Your task to perform on an android device: visit the assistant section in the google photos Image 0: 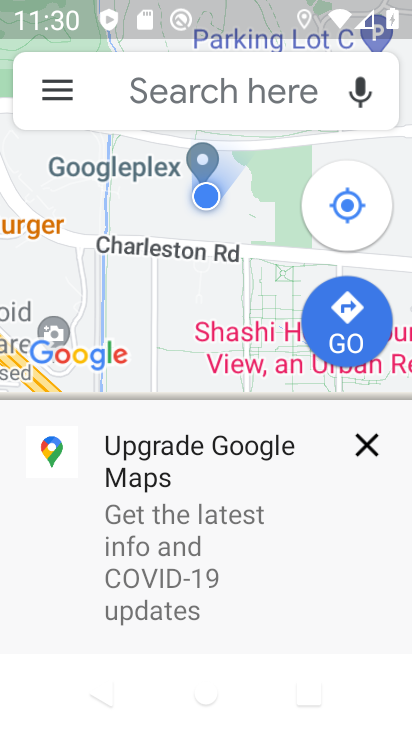
Step 0: press home button
Your task to perform on an android device: visit the assistant section in the google photos Image 1: 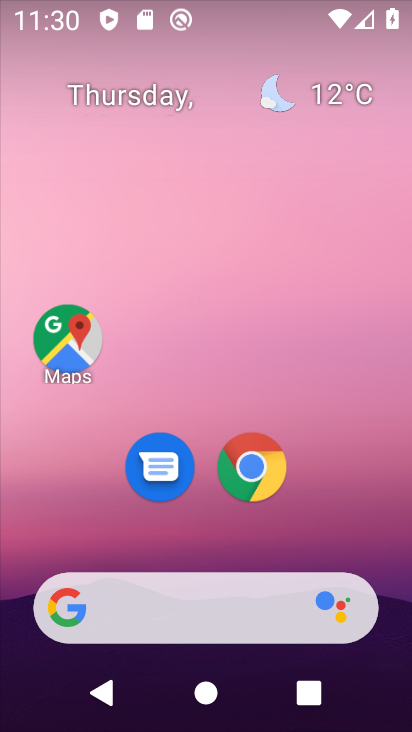
Step 1: drag from (303, 515) to (325, 89)
Your task to perform on an android device: visit the assistant section in the google photos Image 2: 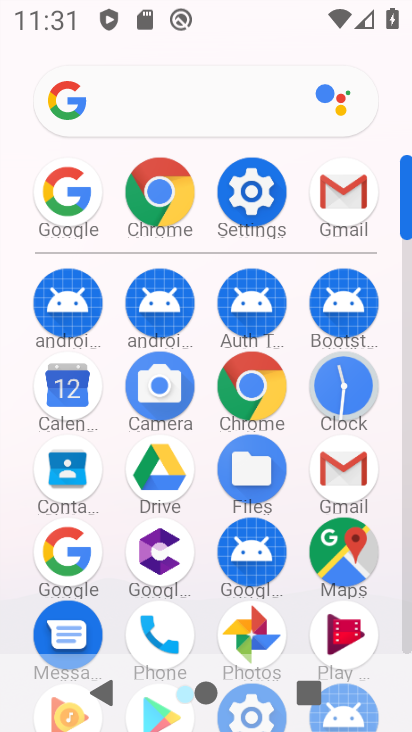
Step 2: click (257, 628)
Your task to perform on an android device: visit the assistant section in the google photos Image 3: 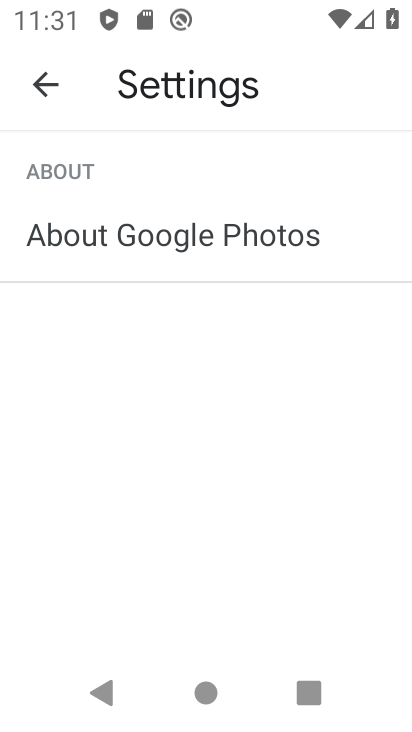
Step 3: click (52, 87)
Your task to perform on an android device: visit the assistant section in the google photos Image 4: 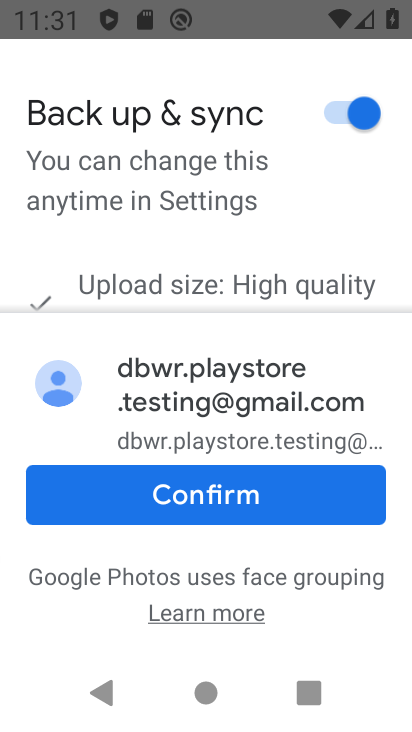
Step 4: click (210, 492)
Your task to perform on an android device: visit the assistant section in the google photos Image 5: 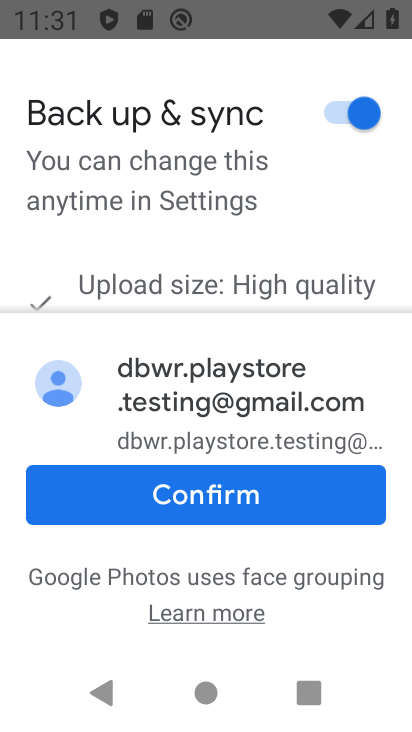
Step 5: click (202, 471)
Your task to perform on an android device: visit the assistant section in the google photos Image 6: 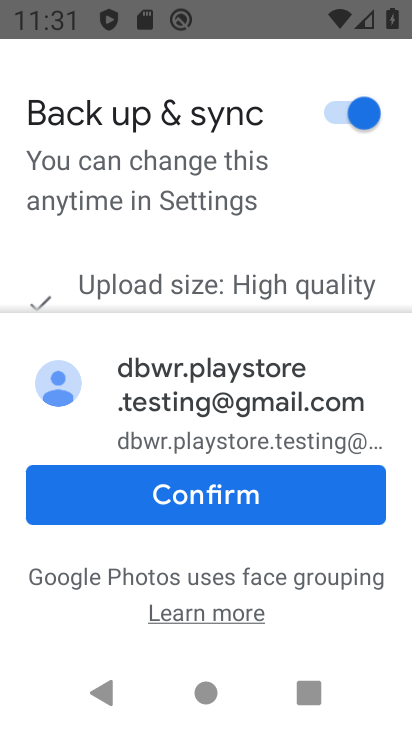
Step 6: click (189, 511)
Your task to perform on an android device: visit the assistant section in the google photos Image 7: 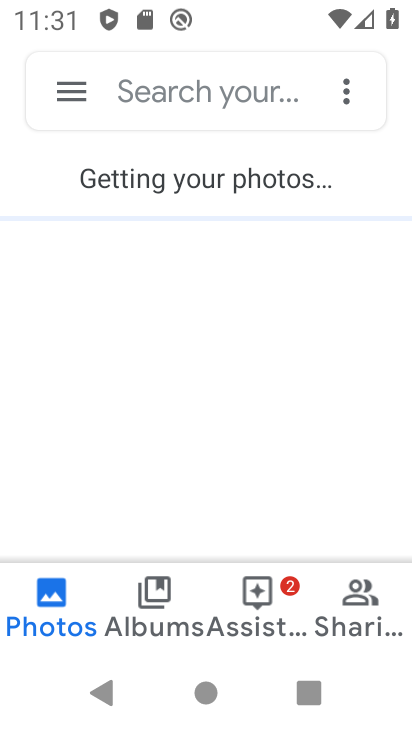
Step 7: click (246, 605)
Your task to perform on an android device: visit the assistant section in the google photos Image 8: 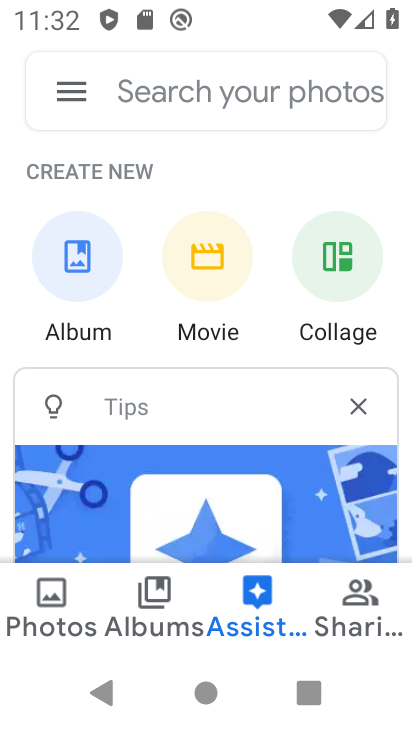
Step 8: task complete